Your task to perform on an android device: Go to Google Image 0: 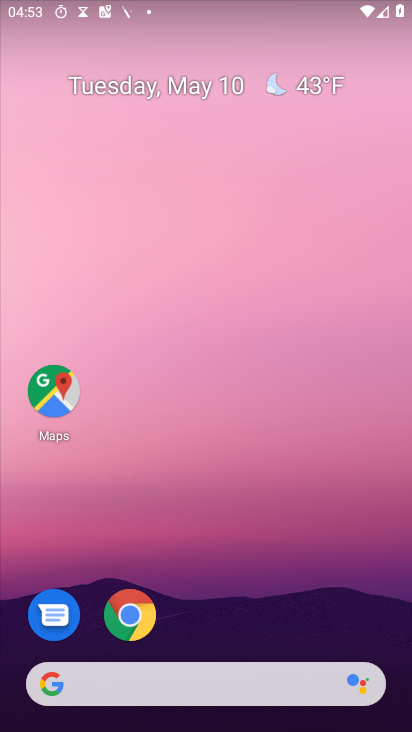
Step 0: drag from (280, 647) to (320, 4)
Your task to perform on an android device: Go to Google Image 1: 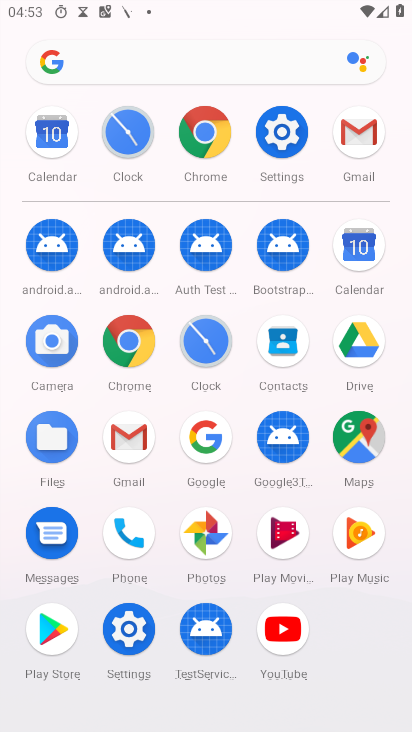
Step 1: click (138, 351)
Your task to perform on an android device: Go to Google Image 2: 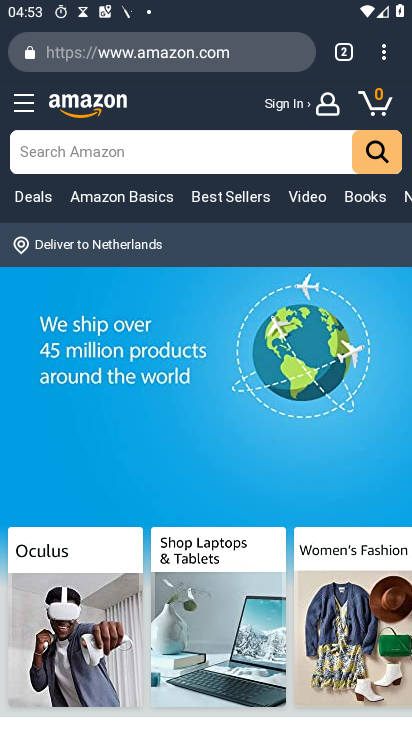
Step 2: task complete